Your task to perform on an android device: How do I get to the nearest T-Mobile Store? Image 0: 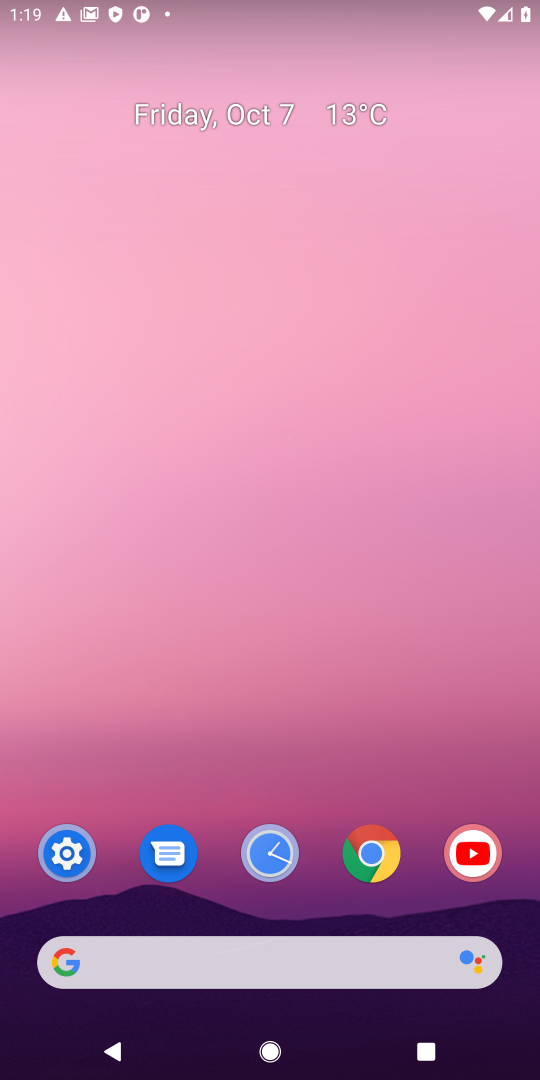
Step 0: click (284, 972)
Your task to perform on an android device: How do I get to the nearest T-Mobile Store? Image 1: 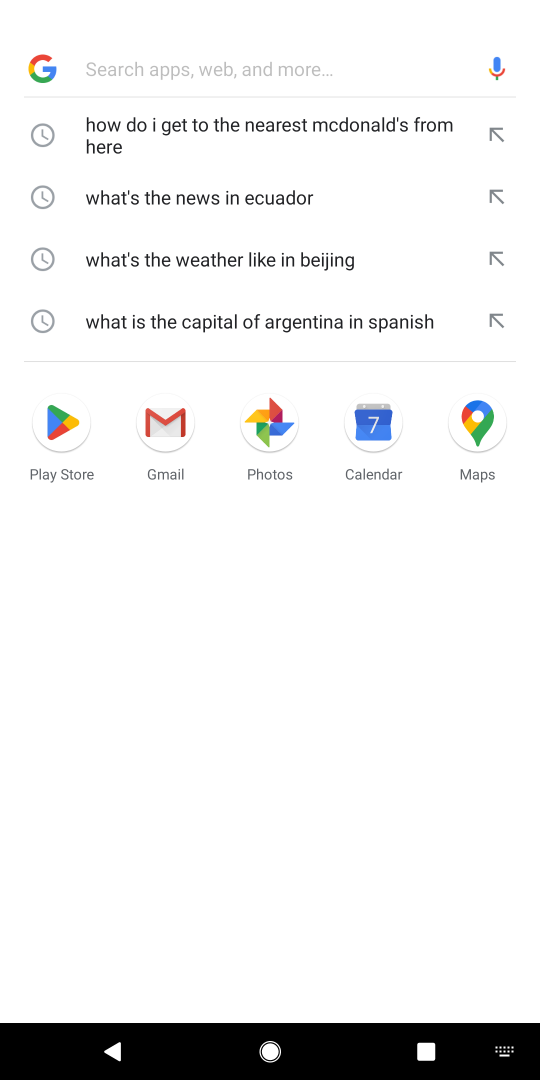
Step 1: type "How do I get to the nearest T-Mobile Store?"
Your task to perform on an android device: How do I get to the nearest T-Mobile Store? Image 2: 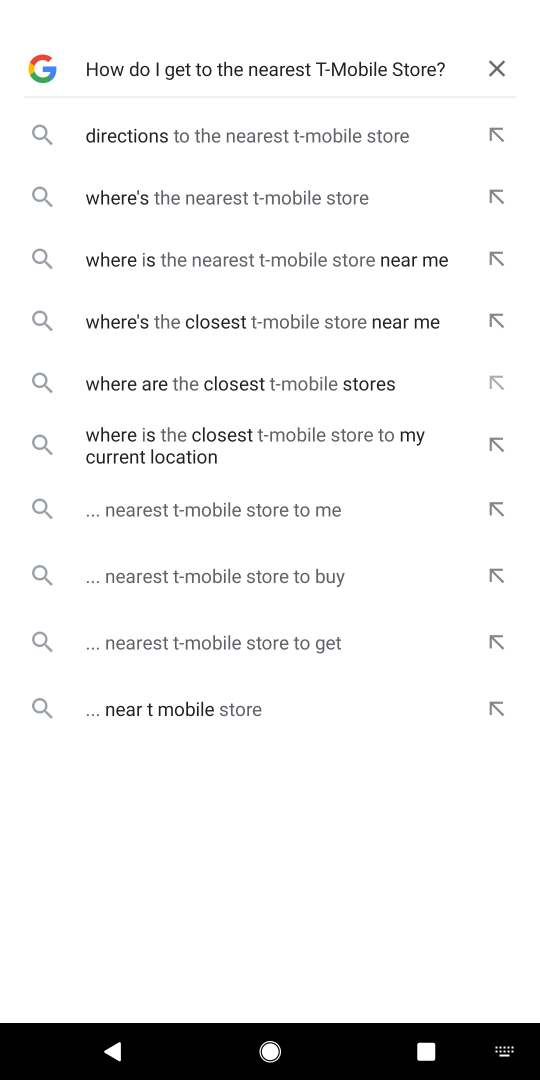
Step 2: click (368, 137)
Your task to perform on an android device: How do I get to the nearest T-Mobile Store? Image 3: 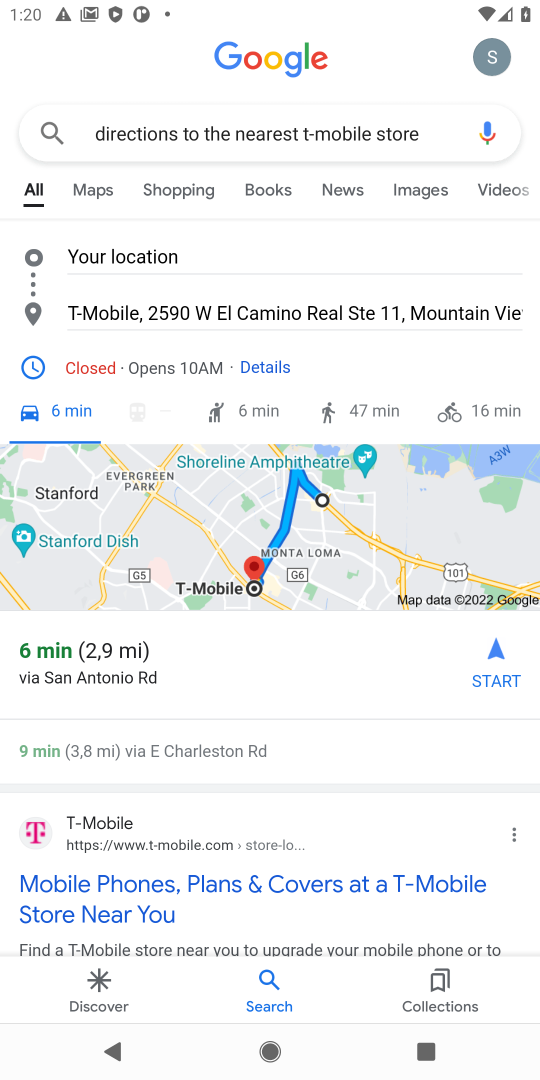
Step 3: task complete